Your task to perform on an android device: turn vacation reply on in the gmail app Image 0: 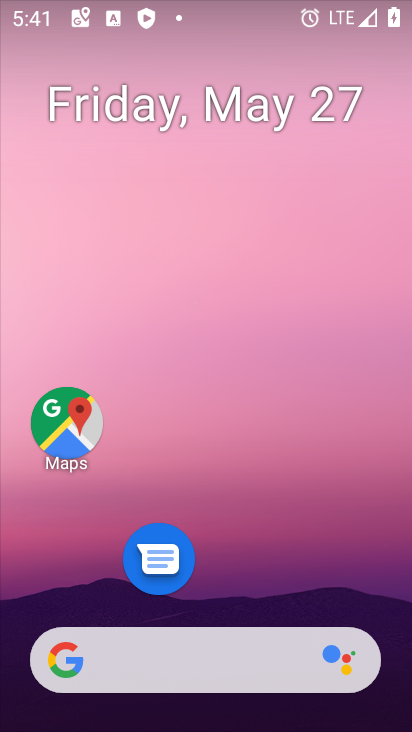
Step 0: drag from (267, 453) to (317, 57)
Your task to perform on an android device: turn vacation reply on in the gmail app Image 1: 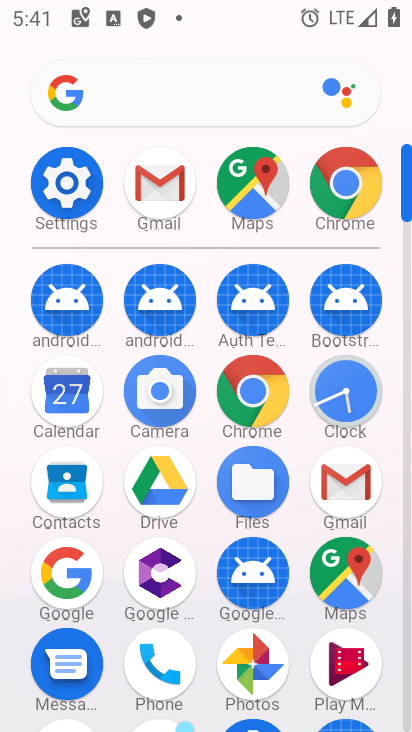
Step 1: click (340, 501)
Your task to perform on an android device: turn vacation reply on in the gmail app Image 2: 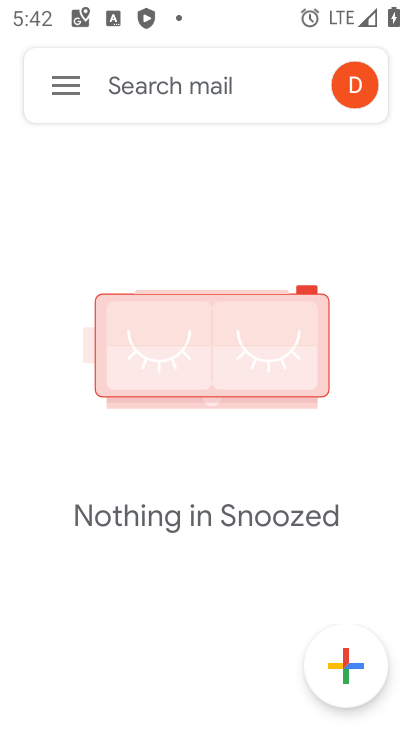
Step 2: click (71, 77)
Your task to perform on an android device: turn vacation reply on in the gmail app Image 3: 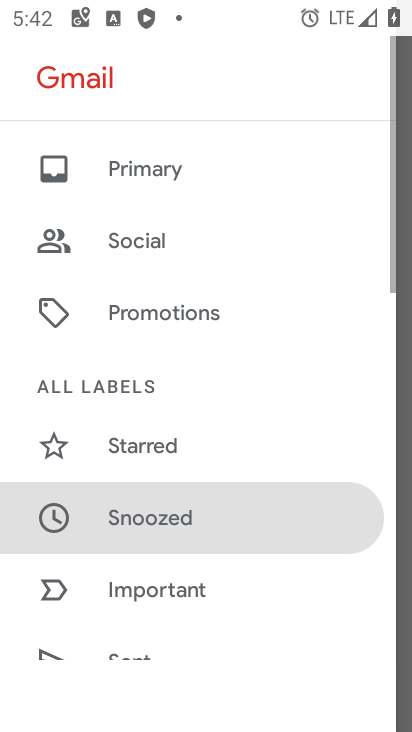
Step 3: drag from (211, 673) to (274, 2)
Your task to perform on an android device: turn vacation reply on in the gmail app Image 4: 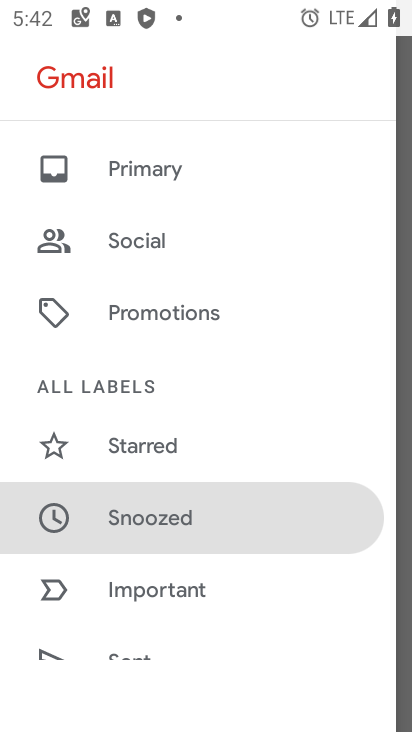
Step 4: drag from (222, 607) to (278, 41)
Your task to perform on an android device: turn vacation reply on in the gmail app Image 5: 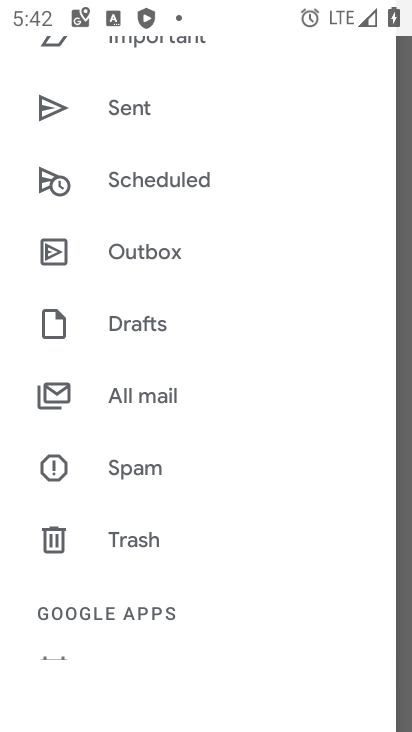
Step 5: drag from (207, 628) to (248, 145)
Your task to perform on an android device: turn vacation reply on in the gmail app Image 6: 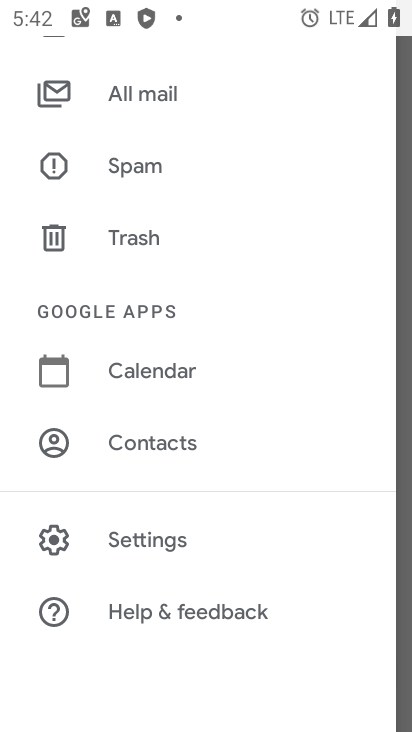
Step 6: click (192, 546)
Your task to perform on an android device: turn vacation reply on in the gmail app Image 7: 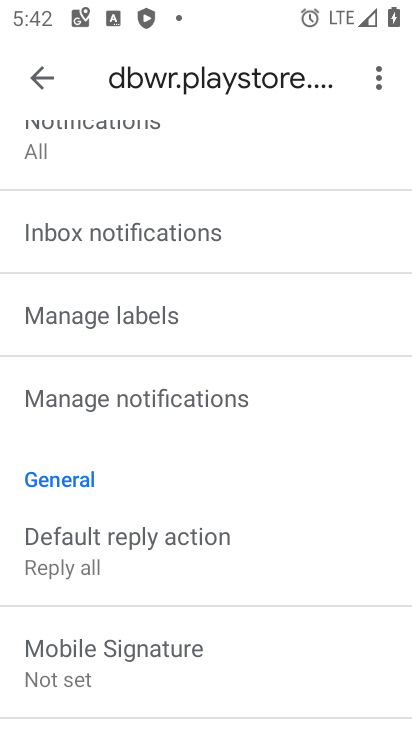
Step 7: task complete